Your task to perform on an android device: Go to network settings Image 0: 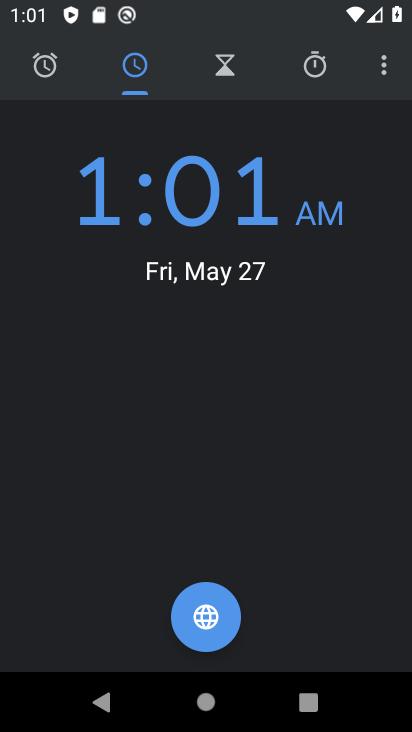
Step 0: press home button
Your task to perform on an android device: Go to network settings Image 1: 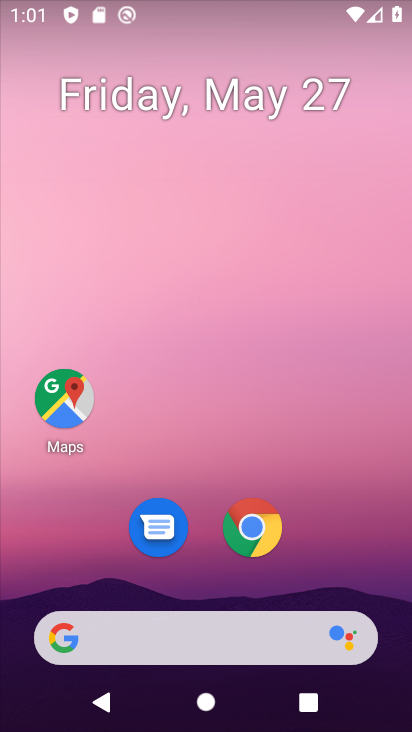
Step 1: drag from (237, 703) to (360, 2)
Your task to perform on an android device: Go to network settings Image 2: 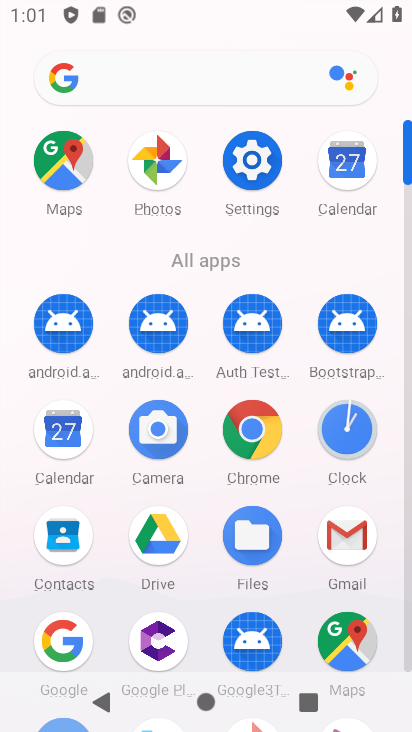
Step 2: click (268, 170)
Your task to perform on an android device: Go to network settings Image 3: 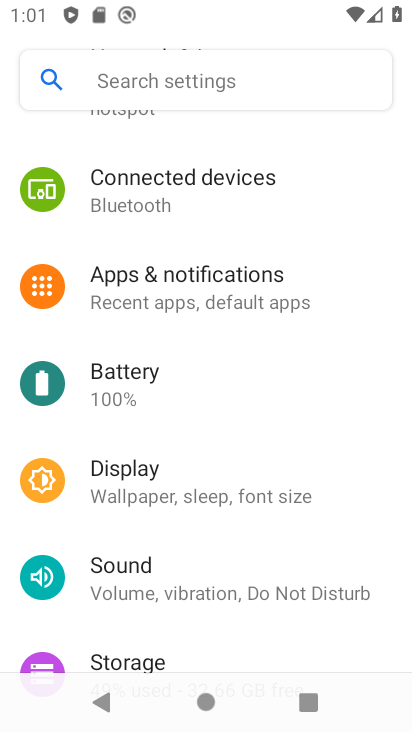
Step 3: drag from (320, 162) to (327, 517)
Your task to perform on an android device: Go to network settings Image 4: 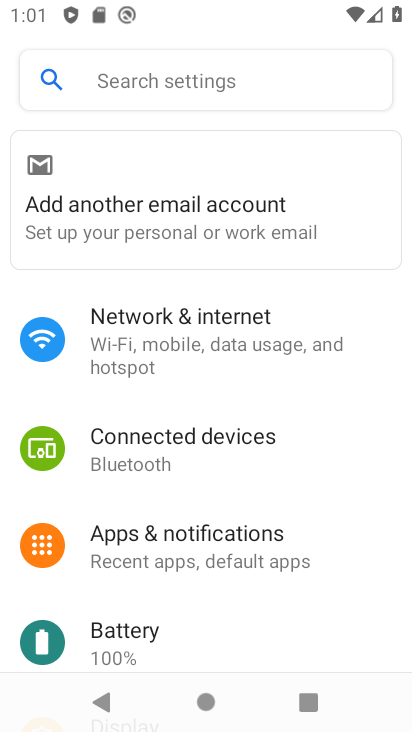
Step 4: click (281, 316)
Your task to perform on an android device: Go to network settings Image 5: 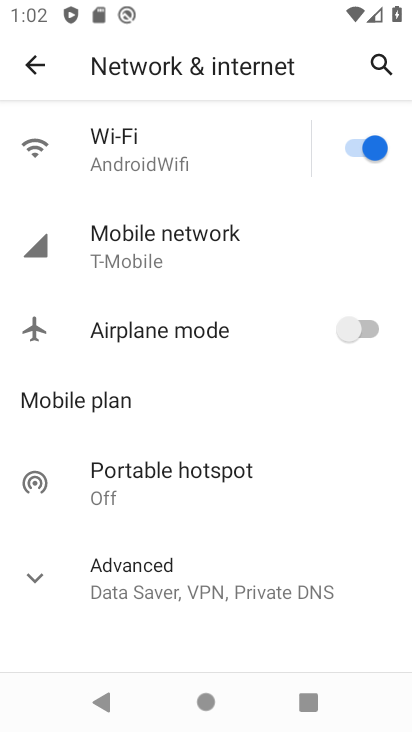
Step 5: task complete